Your task to perform on an android device: open app "Nova Launcher" (install if not already installed) Image 0: 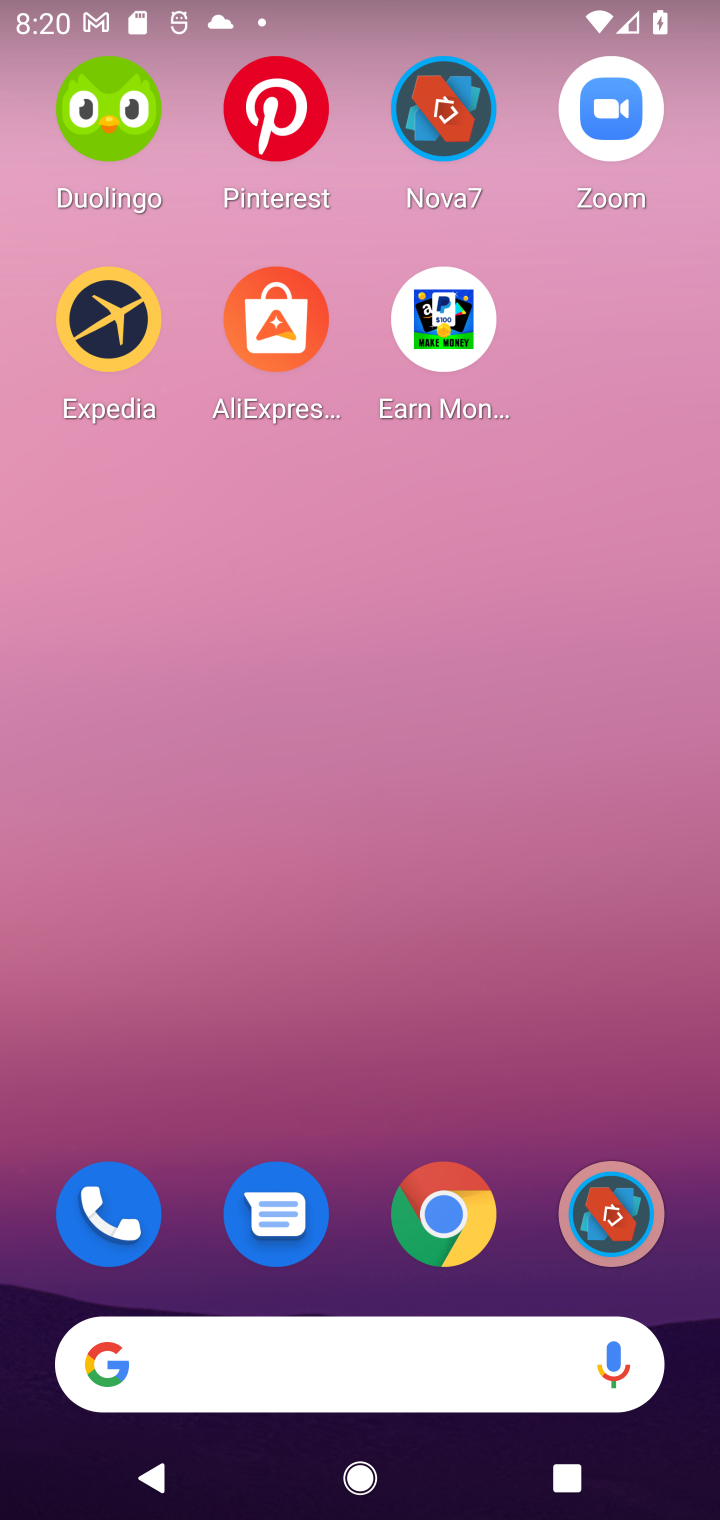
Step 0: drag from (295, 1039) to (404, 194)
Your task to perform on an android device: open app "Nova Launcher" (install if not already installed) Image 1: 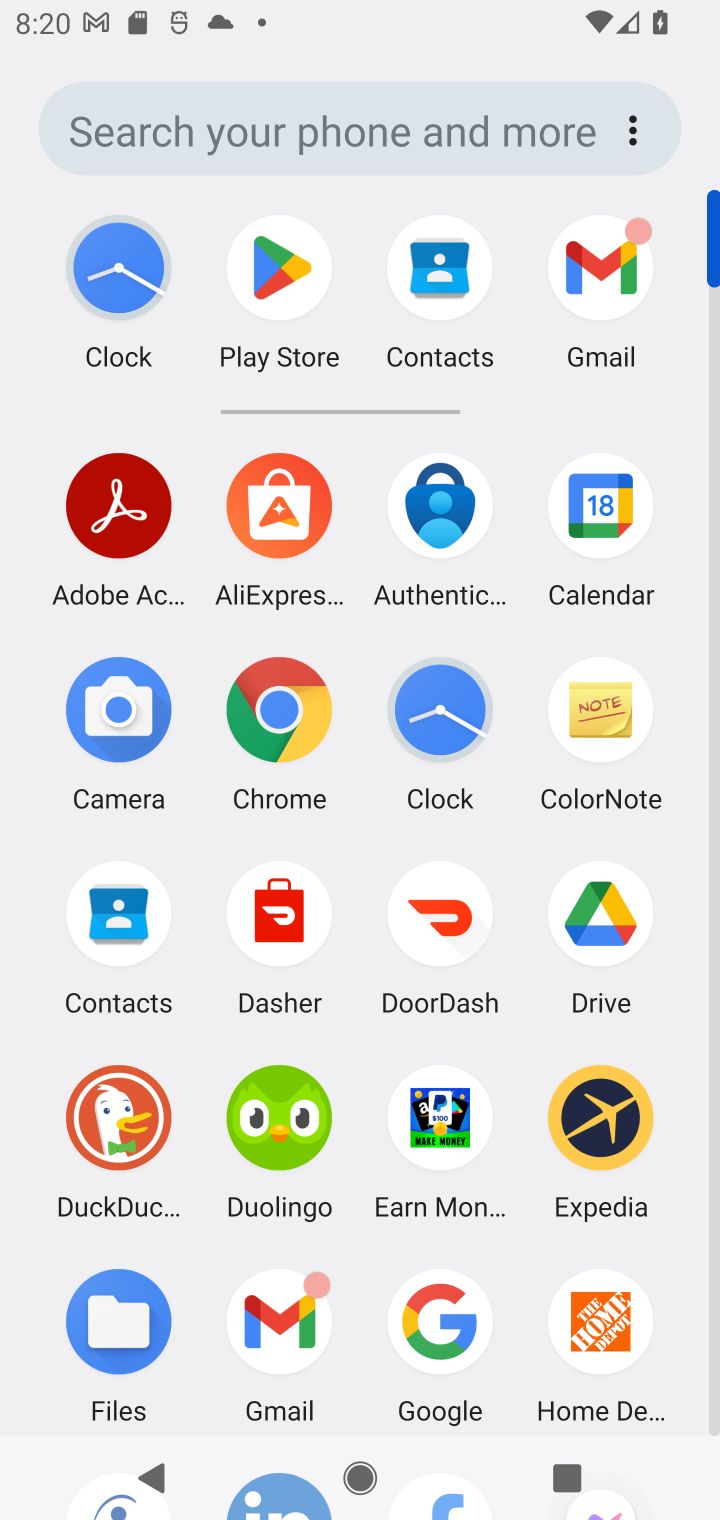
Step 1: click (298, 257)
Your task to perform on an android device: open app "Nova Launcher" (install if not already installed) Image 2: 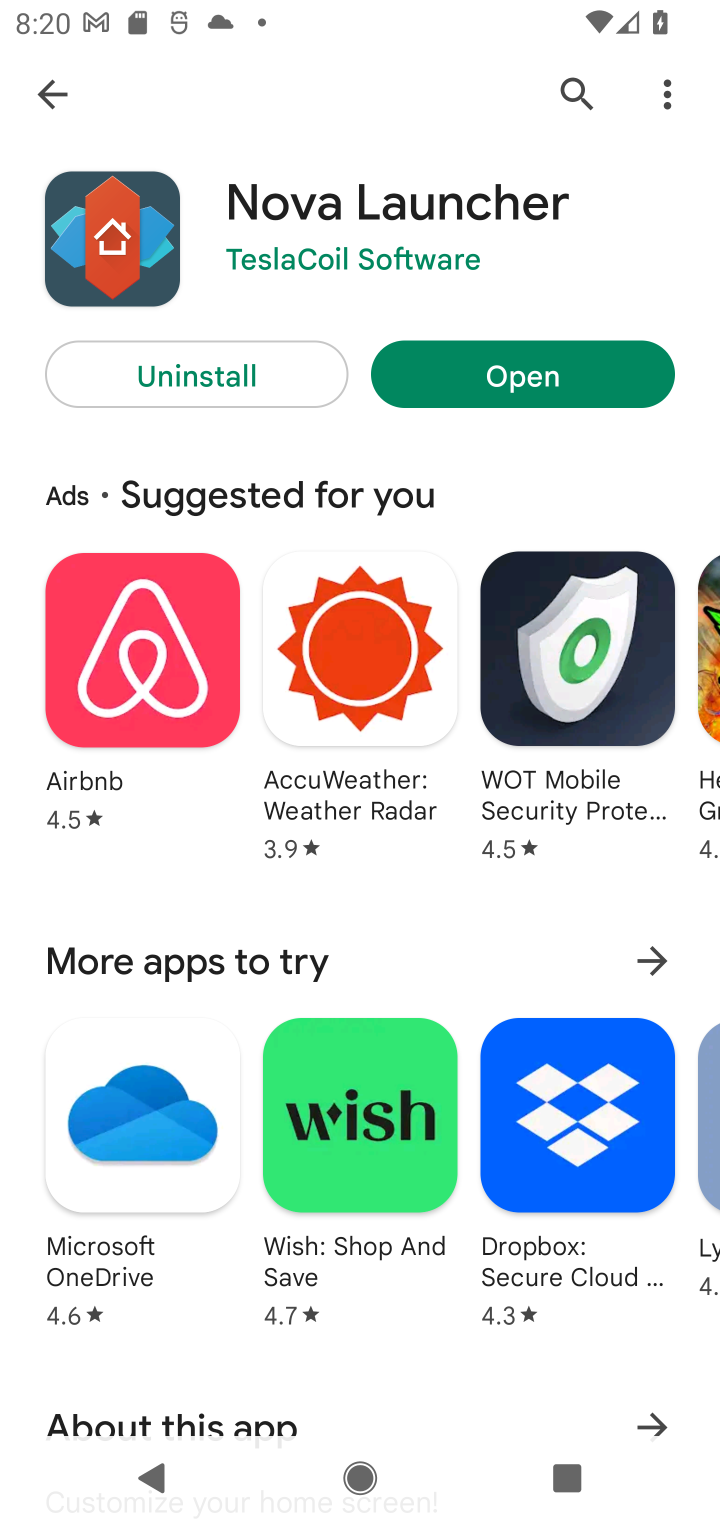
Step 2: click (576, 78)
Your task to perform on an android device: open app "Nova Launcher" (install if not already installed) Image 3: 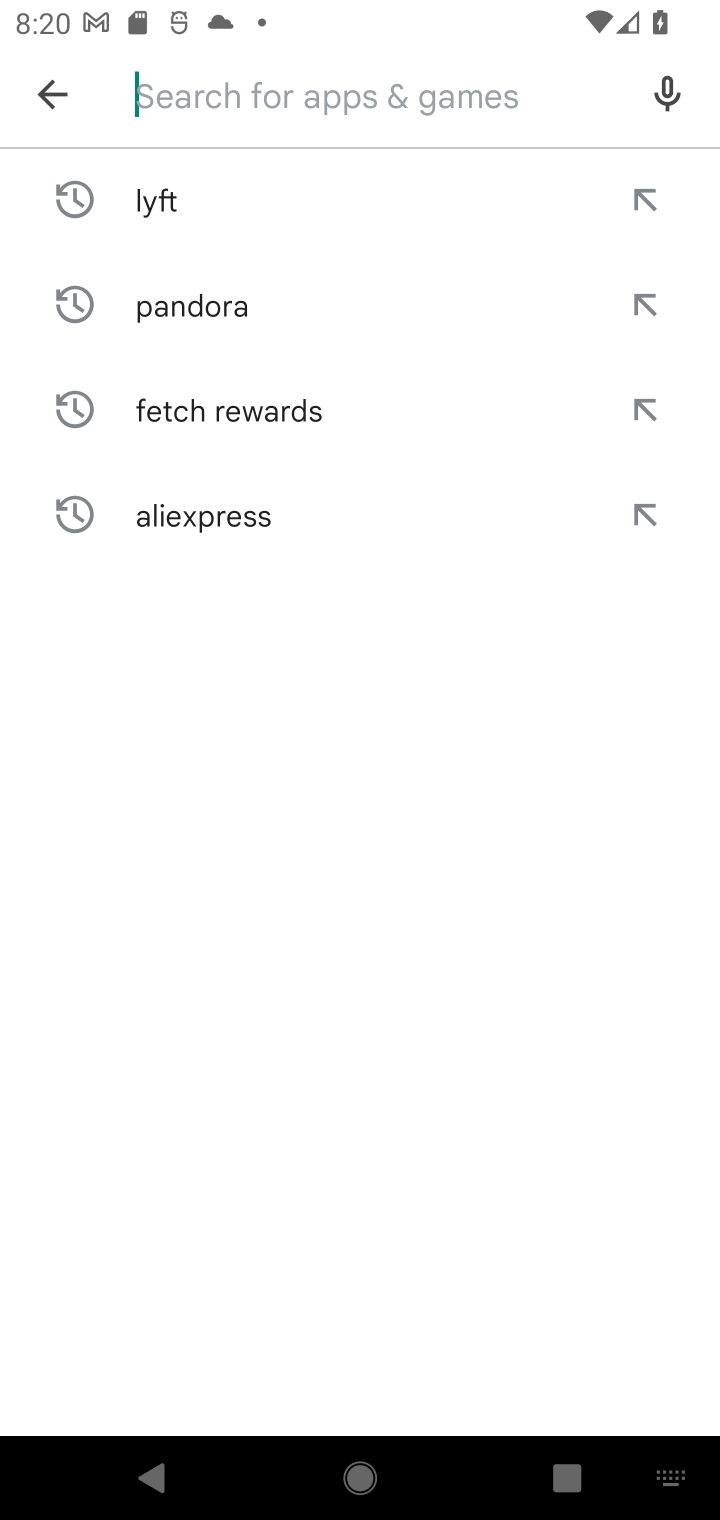
Step 3: click (196, 104)
Your task to perform on an android device: open app "Nova Launcher" (install if not already installed) Image 4: 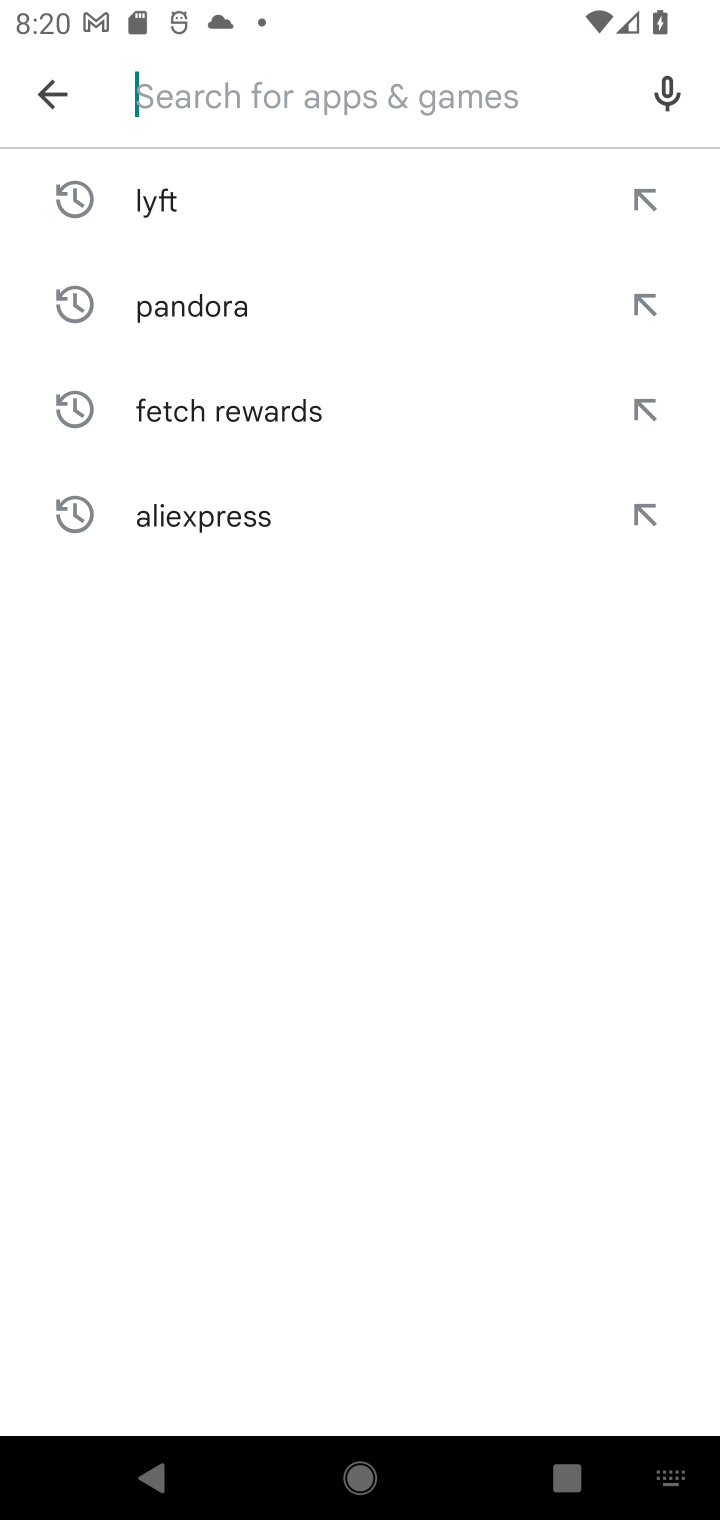
Step 4: type "nova launcher"
Your task to perform on an android device: open app "Nova Launcher" (install if not already installed) Image 5: 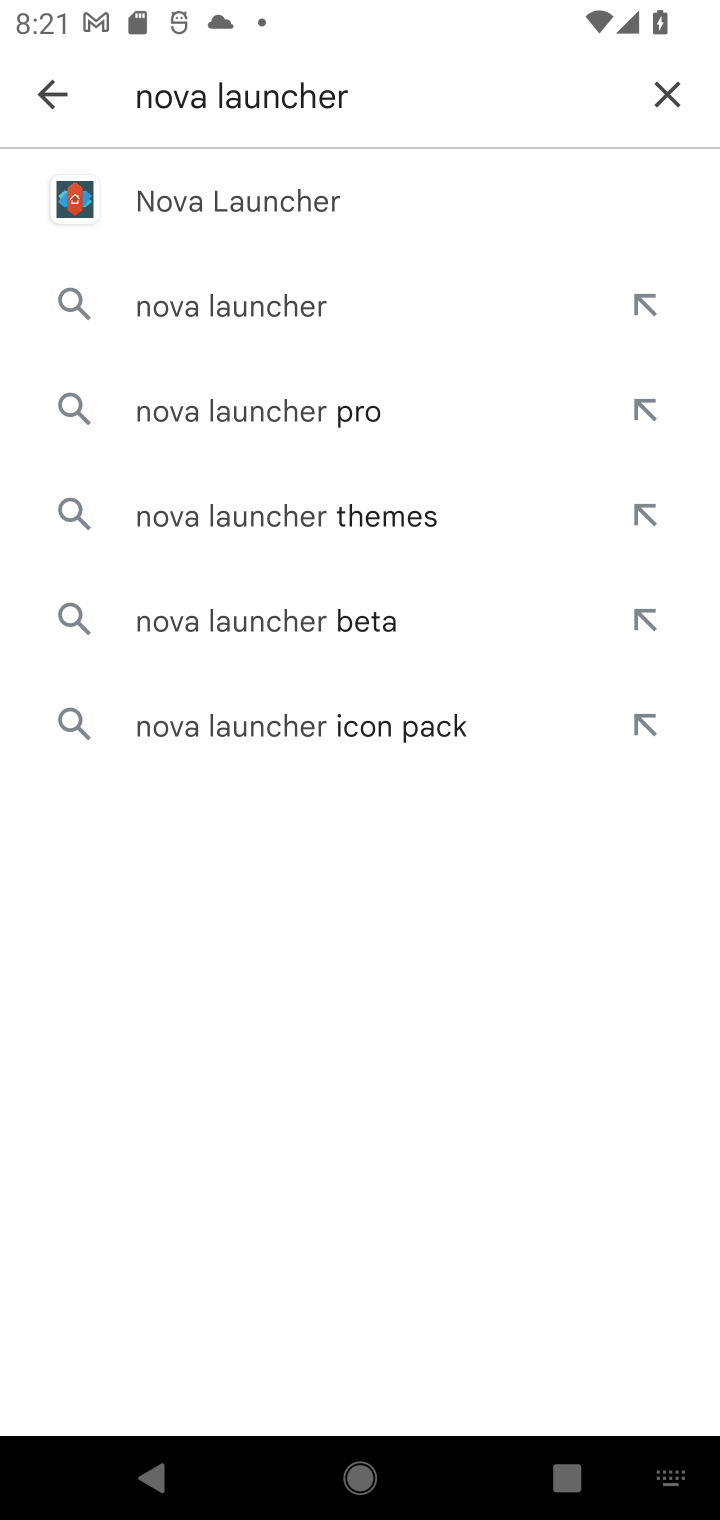
Step 5: click (256, 210)
Your task to perform on an android device: open app "Nova Launcher" (install if not already installed) Image 6: 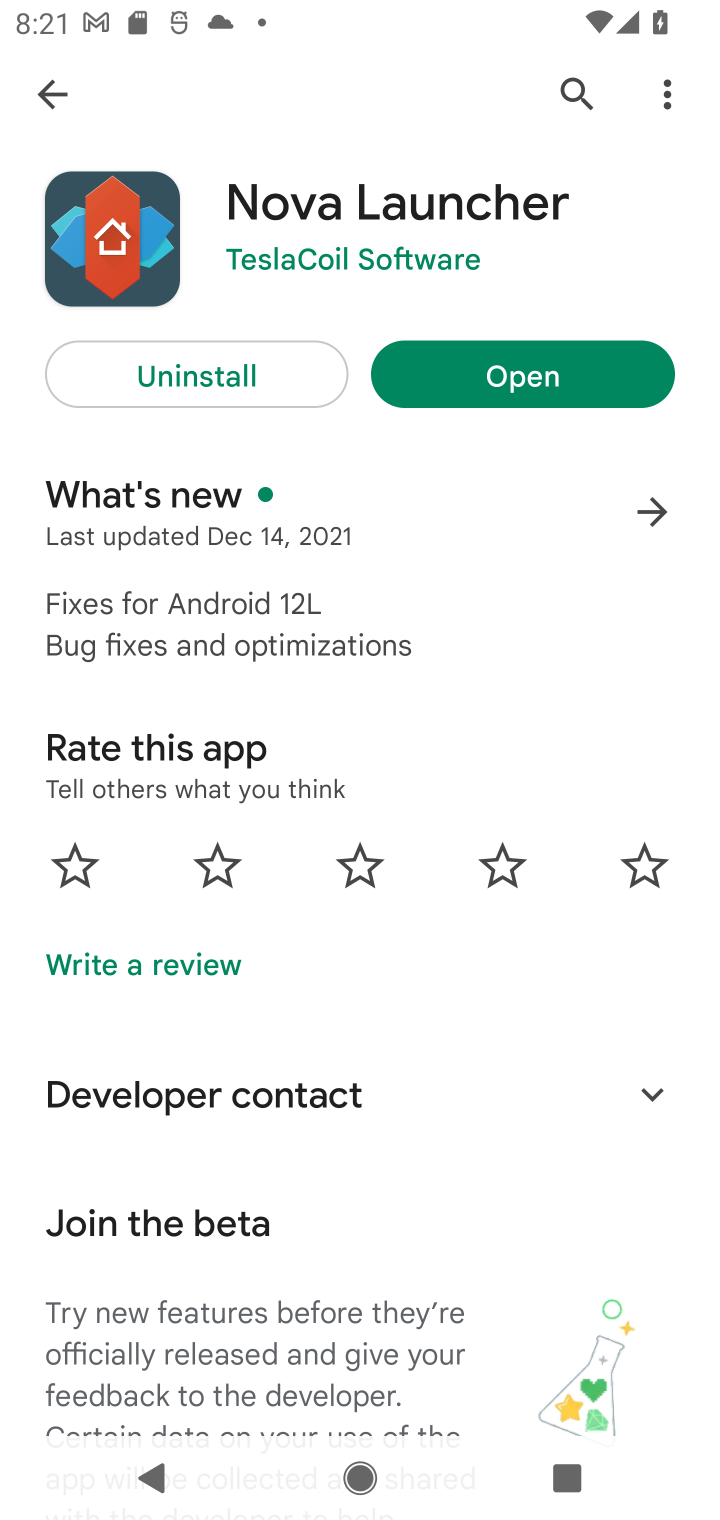
Step 6: click (490, 362)
Your task to perform on an android device: open app "Nova Launcher" (install if not already installed) Image 7: 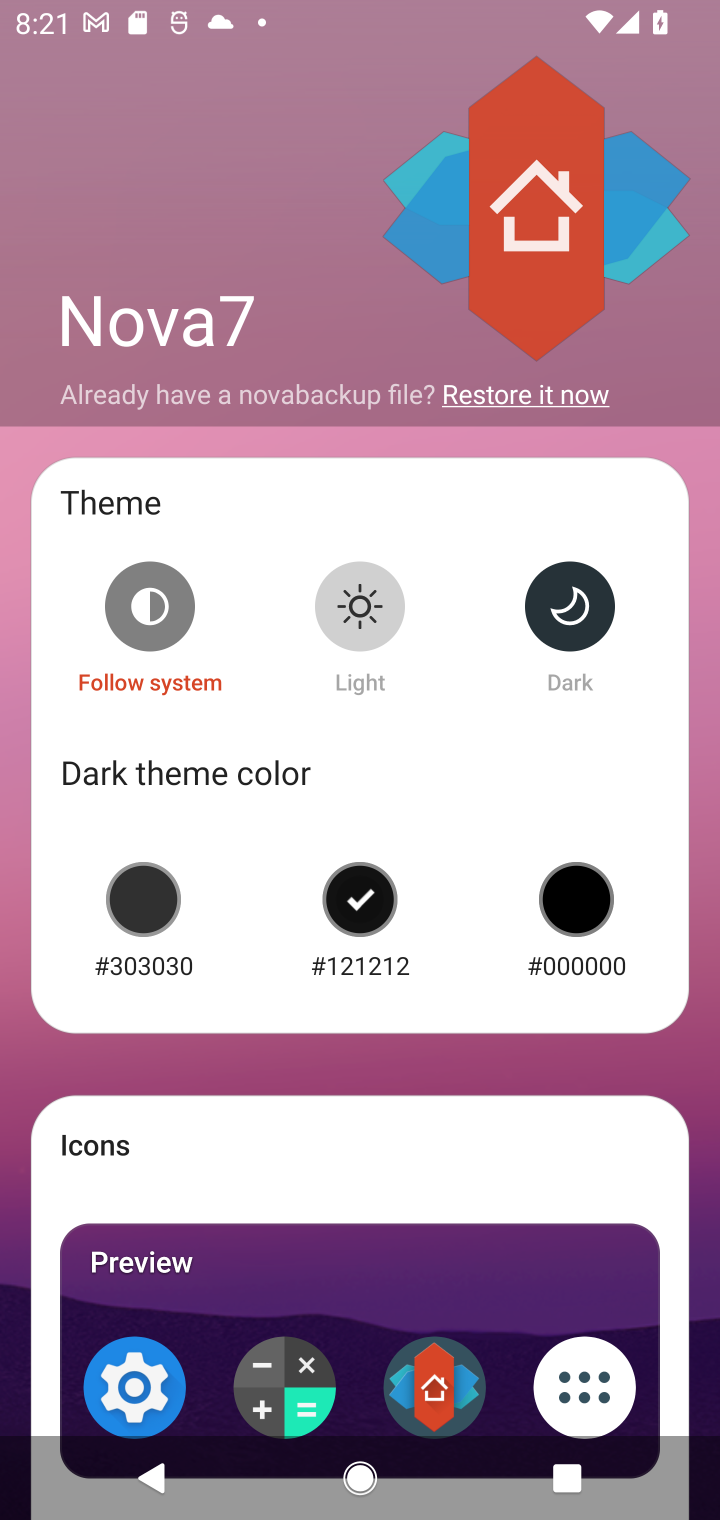
Step 7: task complete